Your task to perform on an android device: allow cookies in the chrome app Image 0: 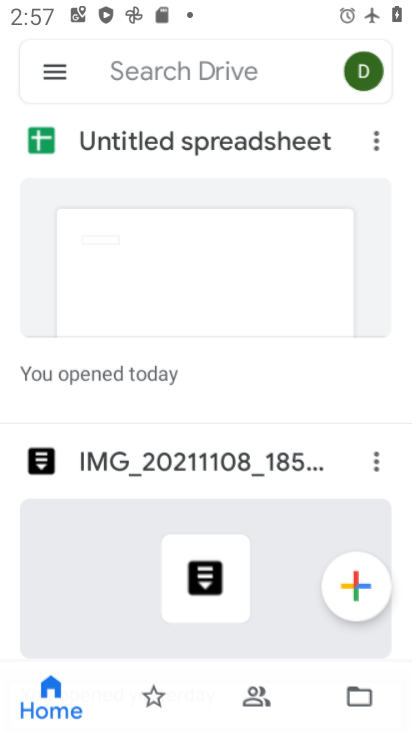
Step 0: drag from (321, 555) to (298, 279)
Your task to perform on an android device: allow cookies in the chrome app Image 1: 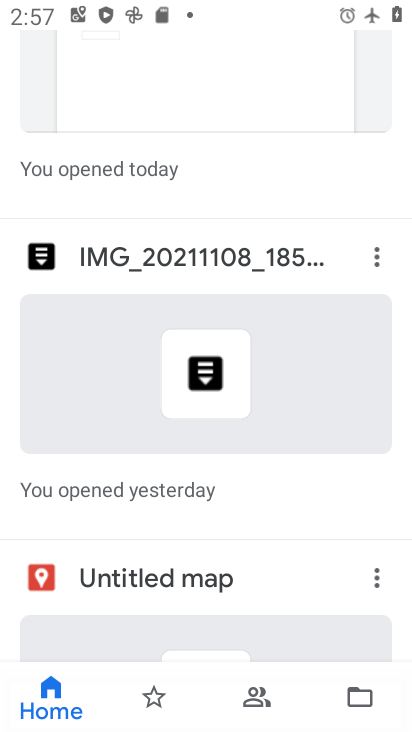
Step 1: press home button
Your task to perform on an android device: allow cookies in the chrome app Image 2: 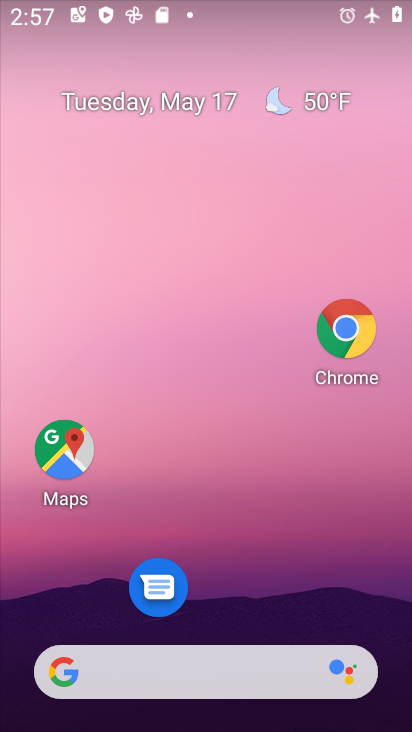
Step 2: click (256, 630)
Your task to perform on an android device: allow cookies in the chrome app Image 3: 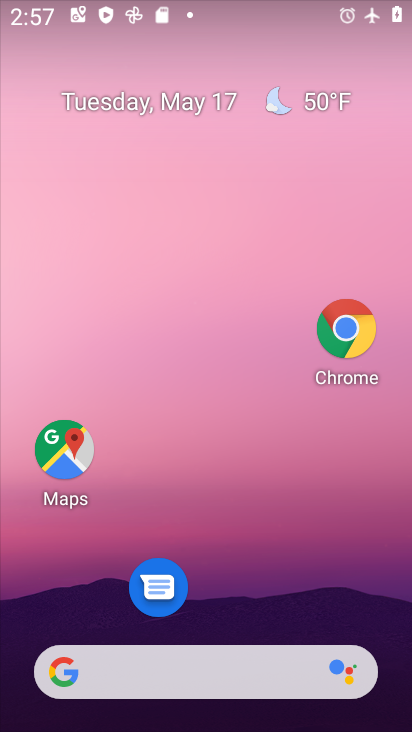
Step 3: click (357, 329)
Your task to perform on an android device: allow cookies in the chrome app Image 4: 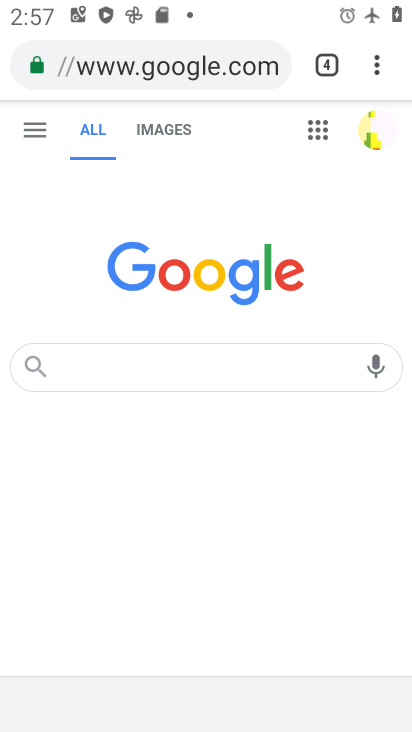
Step 4: click (376, 72)
Your task to perform on an android device: allow cookies in the chrome app Image 5: 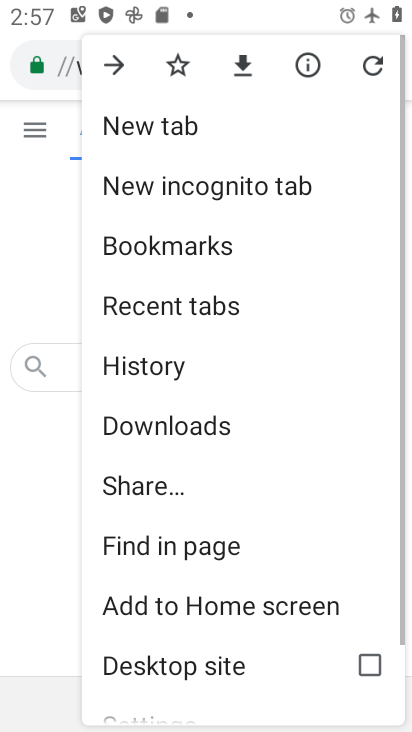
Step 5: drag from (287, 618) to (319, 293)
Your task to perform on an android device: allow cookies in the chrome app Image 6: 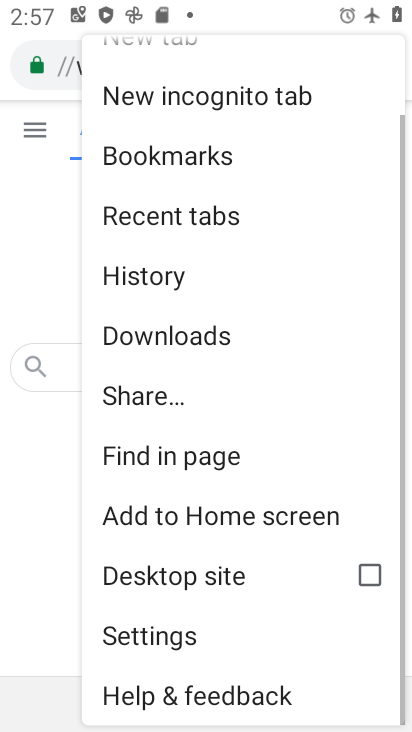
Step 6: click (251, 654)
Your task to perform on an android device: allow cookies in the chrome app Image 7: 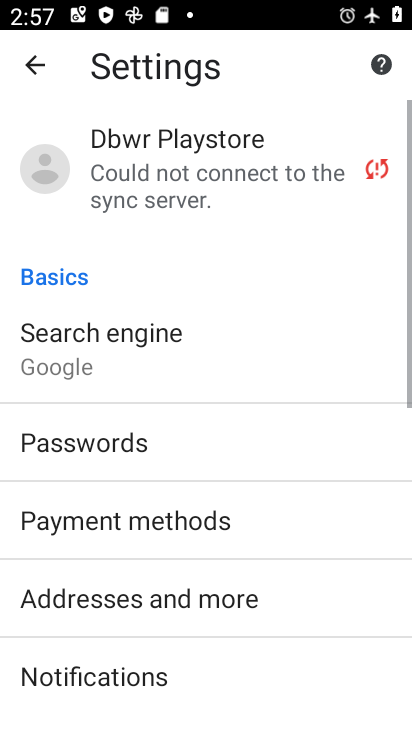
Step 7: drag from (251, 561) to (246, 351)
Your task to perform on an android device: allow cookies in the chrome app Image 8: 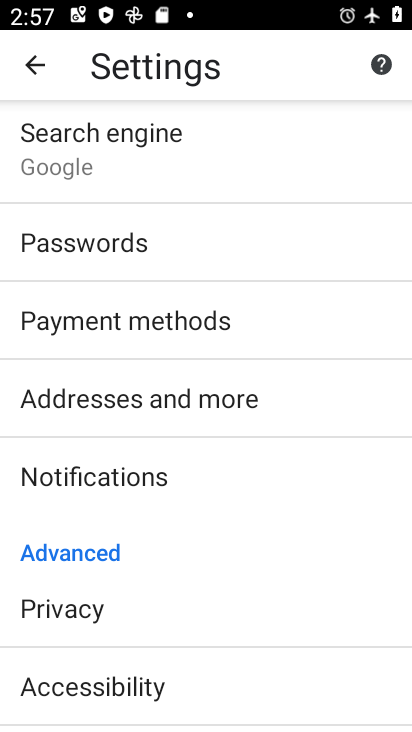
Step 8: drag from (225, 622) to (249, 482)
Your task to perform on an android device: allow cookies in the chrome app Image 9: 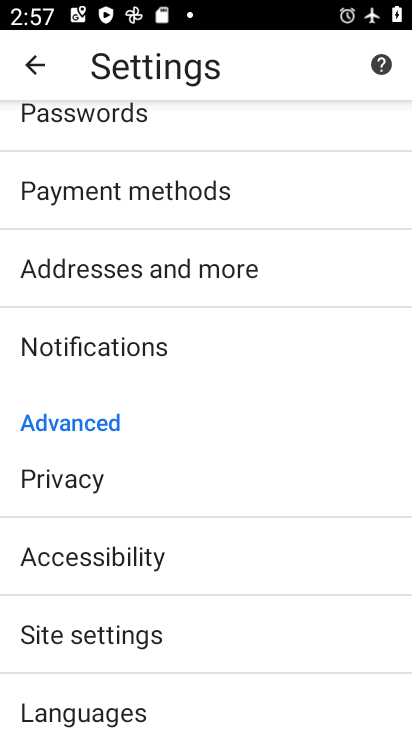
Step 9: drag from (201, 694) to (223, 362)
Your task to perform on an android device: allow cookies in the chrome app Image 10: 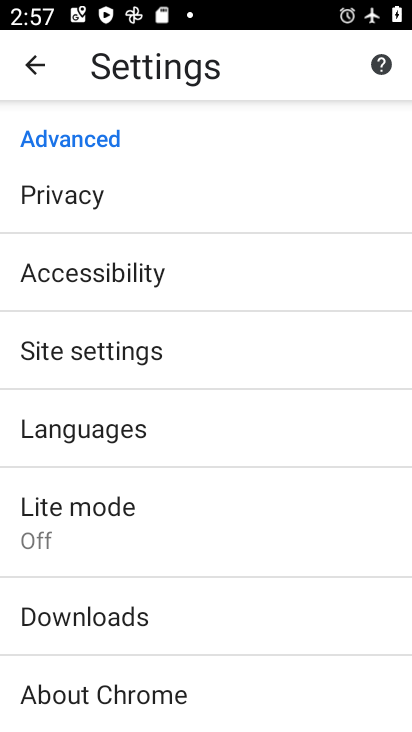
Step 10: click (200, 336)
Your task to perform on an android device: allow cookies in the chrome app Image 11: 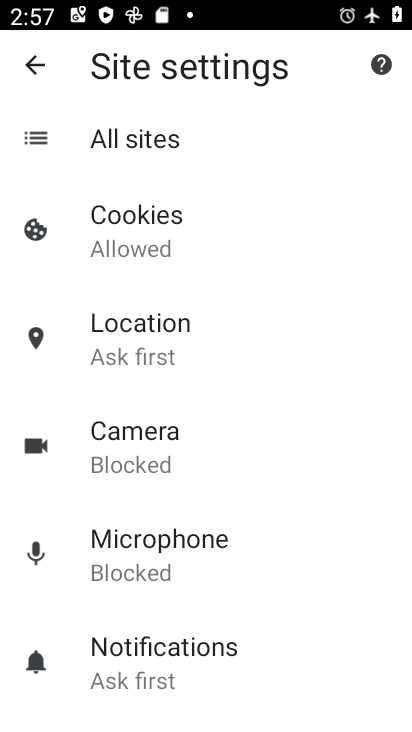
Step 11: click (189, 215)
Your task to perform on an android device: allow cookies in the chrome app Image 12: 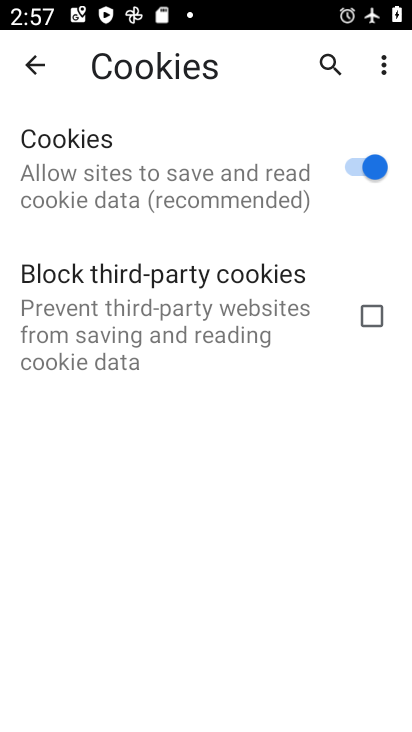
Step 12: task complete